Your task to perform on an android device: visit the assistant section in the google photos Image 0: 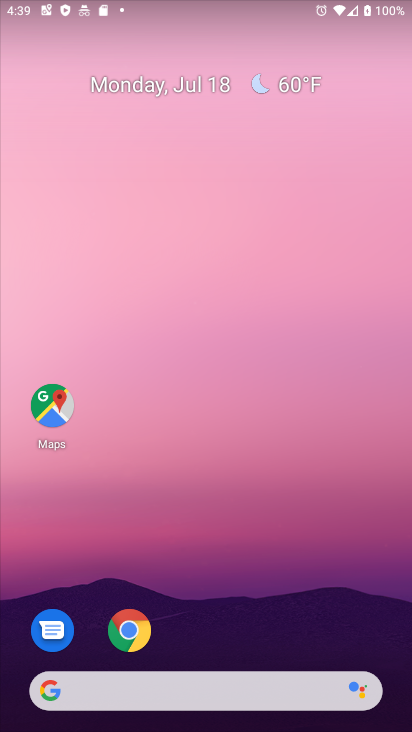
Step 0: drag from (267, 401) to (229, 133)
Your task to perform on an android device: visit the assistant section in the google photos Image 1: 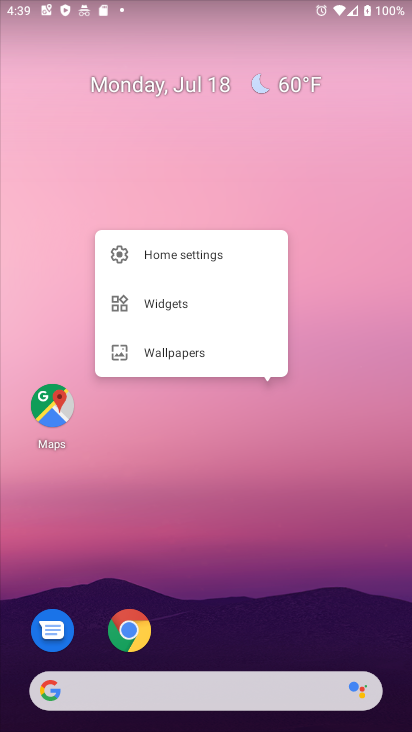
Step 1: drag from (280, 287) to (248, 51)
Your task to perform on an android device: visit the assistant section in the google photos Image 2: 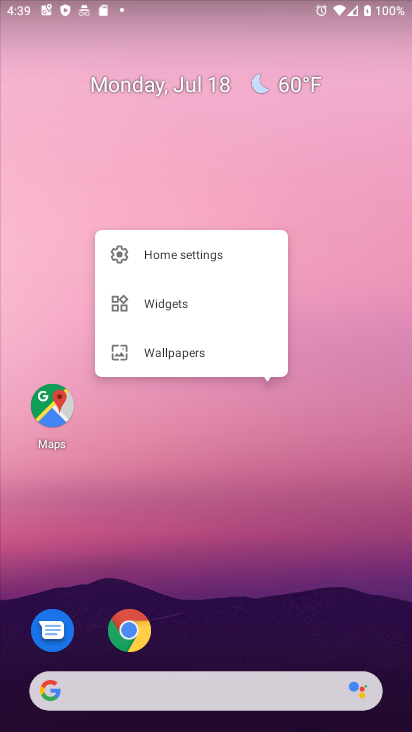
Step 2: drag from (346, 178) to (329, 34)
Your task to perform on an android device: visit the assistant section in the google photos Image 3: 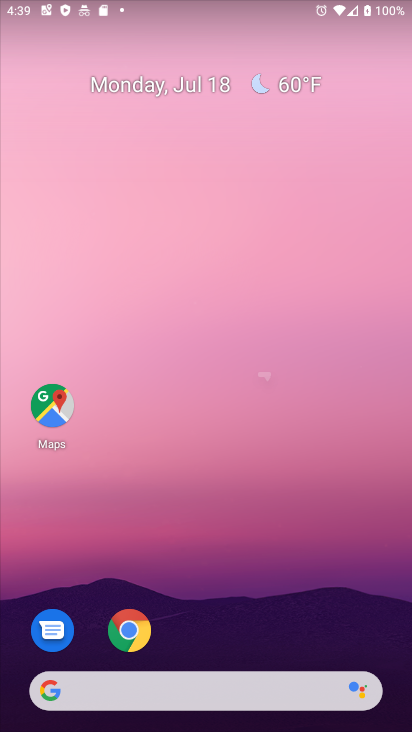
Step 3: drag from (303, 281) to (260, 114)
Your task to perform on an android device: visit the assistant section in the google photos Image 4: 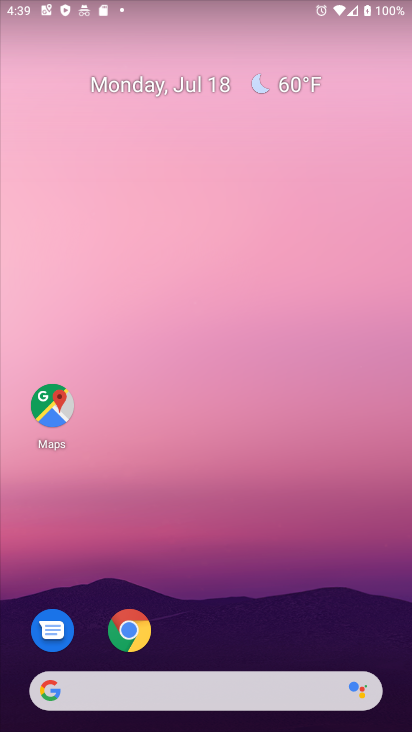
Step 4: drag from (251, 390) to (214, 185)
Your task to perform on an android device: visit the assistant section in the google photos Image 5: 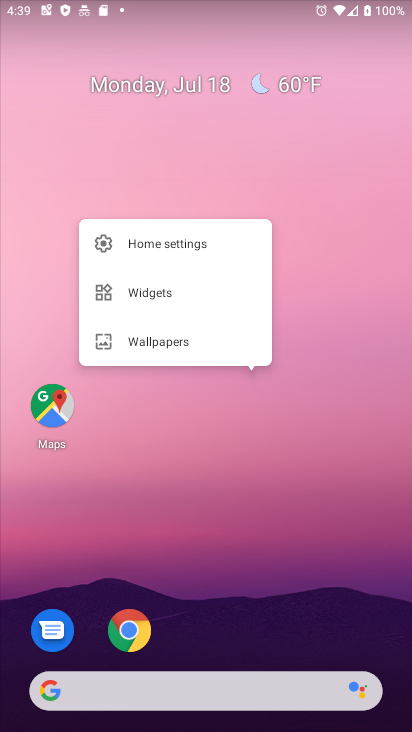
Step 5: drag from (216, 513) to (217, 180)
Your task to perform on an android device: visit the assistant section in the google photos Image 6: 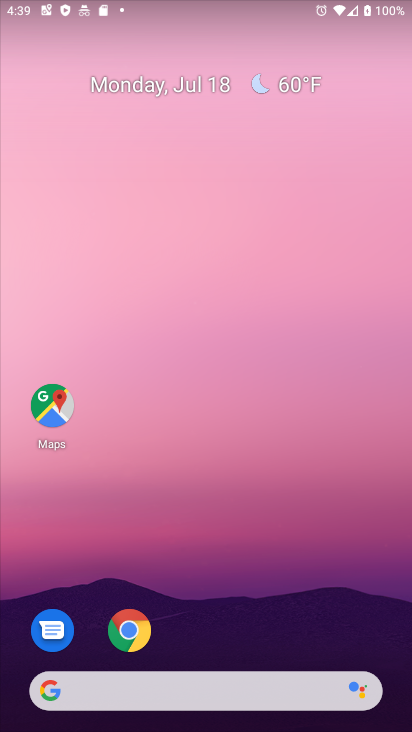
Step 6: drag from (228, 560) to (217, 186)
Your task to perform on an android device: visit the assistant section in the google photos Image 7: 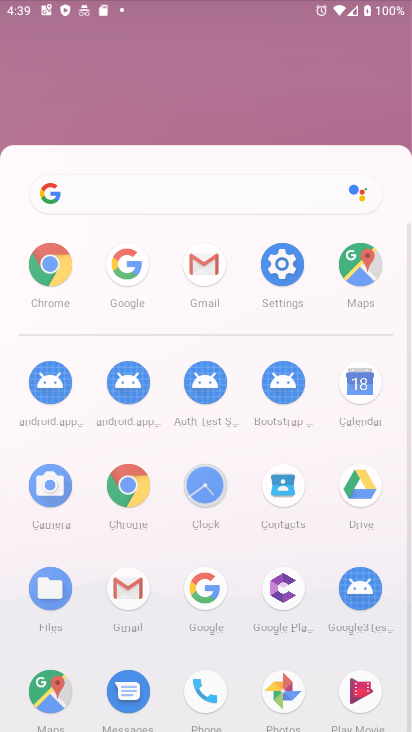
Step 7: drag from (287, 469) to (202, 38)
Your task to perform on an android device: visit the assistant section in the google photos Image 8: 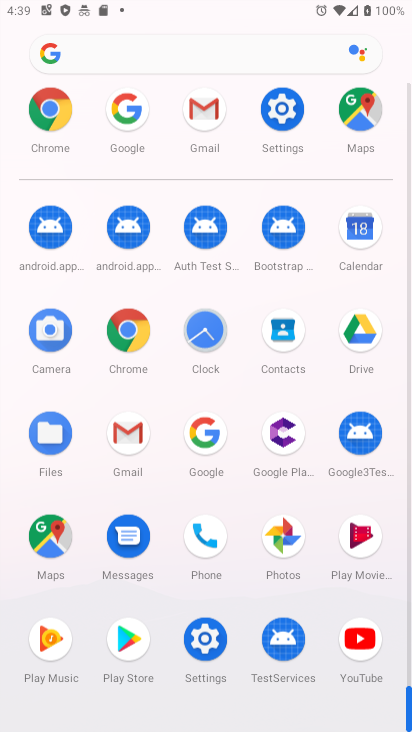
Step 8: drag from (211, 432) to (211, 97)
Your task to perform on an android device: visit the assistant section in the google photos Image 9: 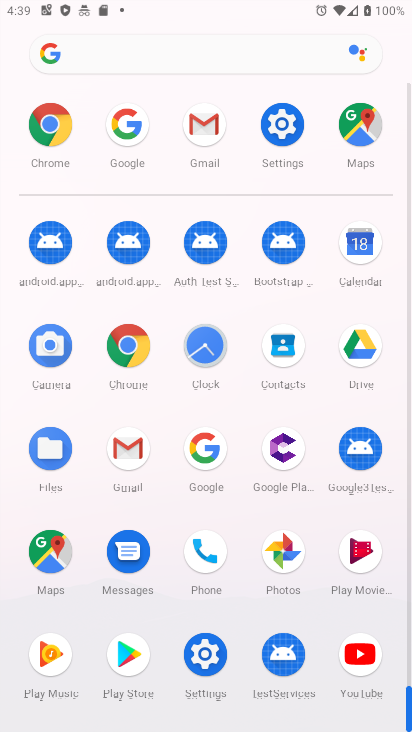
Step 9: click (283, 552)
Your task to perform on an android device: visit the assistant section in the google photos Image 10: 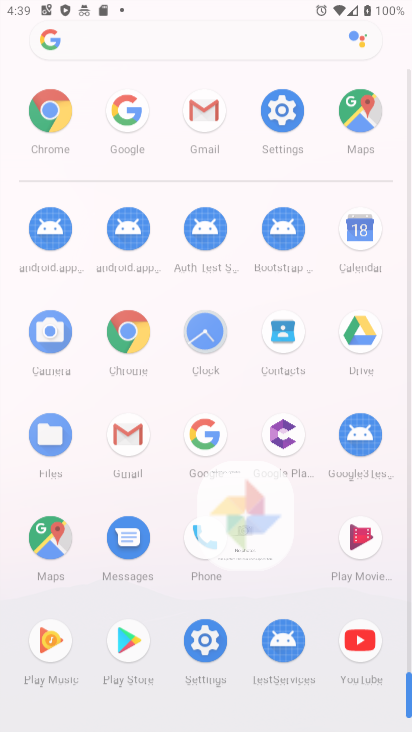
Step 10: click (282, 554)
Your task to perform on an android device: visit the assistant section in the google photos Image 11: 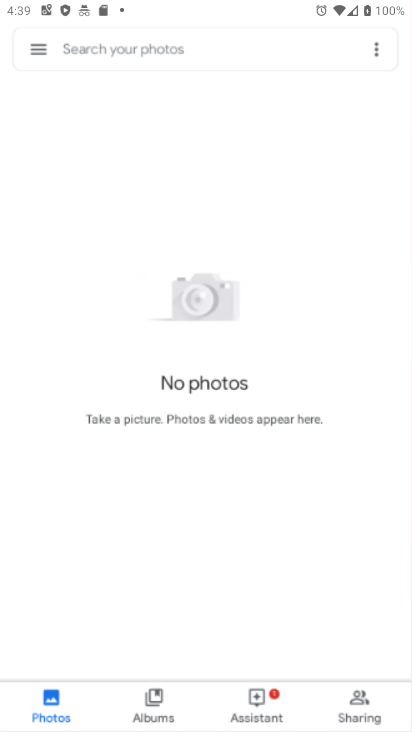
Step 11: click (282, 554)
Your task to perform on an android device: visit the assistant section in the google photos Image 12: 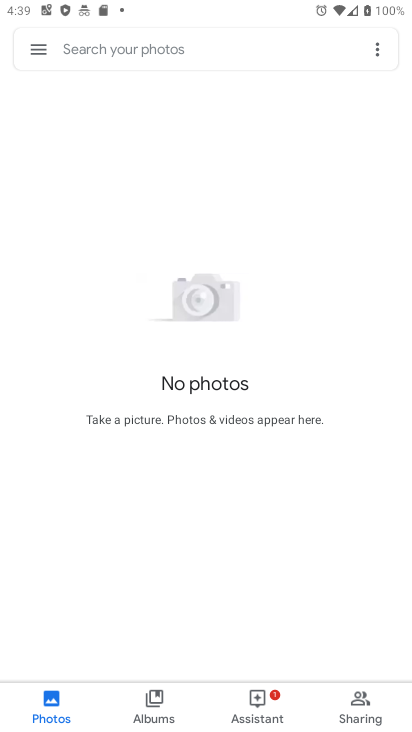
Step 12: click (279, 709)
Your task to perform on an android device: visit the assistant section in the google photos Image 13: 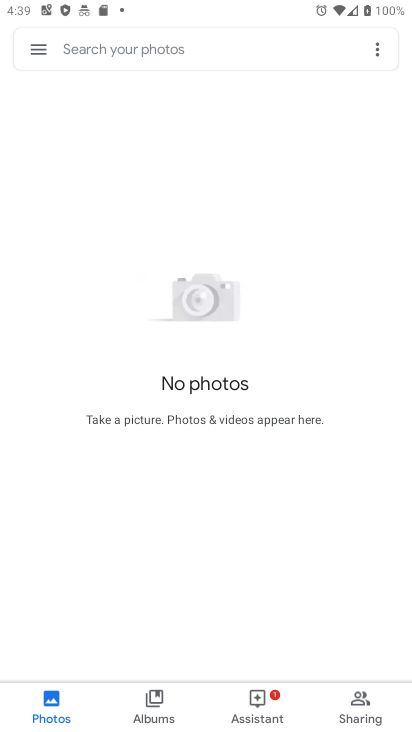
Step 13: click (269, 708)
Your task to perform on an android device: visit the assistant section in the google photos Image 14: 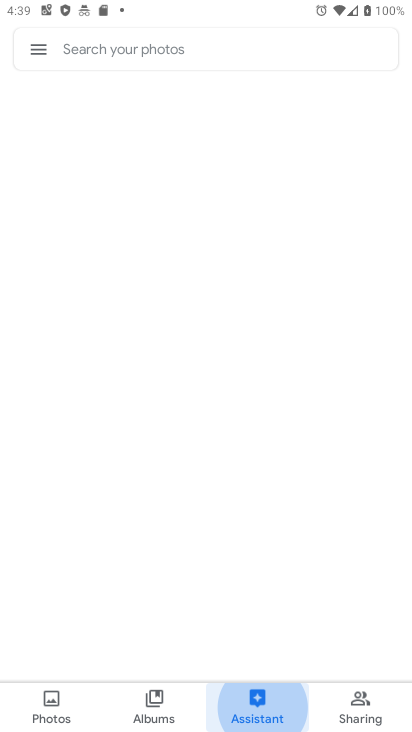
Step 14: click (269, 708)
Your task to perform on an android device: visit the assistant section in the google photos Image 15: 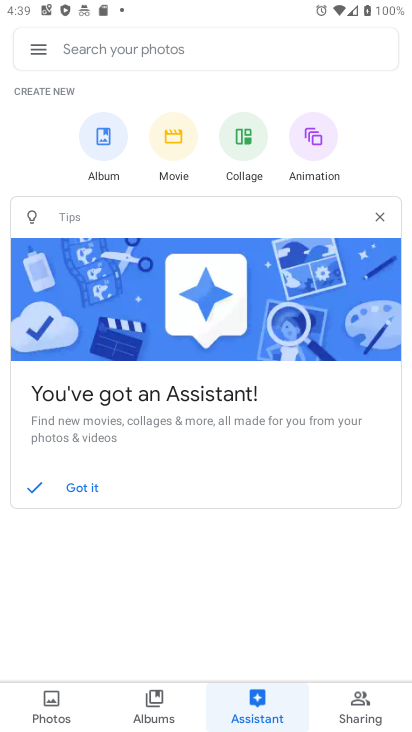
Step 15: click (268, 707)
Your task to perform on an android device: visit the assistant section in the google photos Image 16: 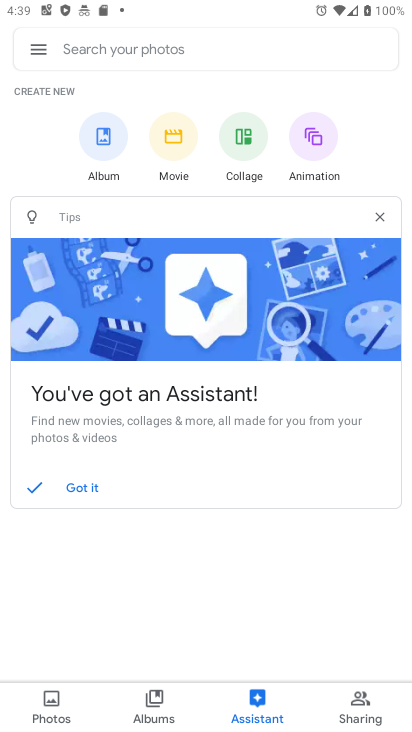
Step 16: task complete